Your task to perform on an android device: Open Reddit.com Image 0: 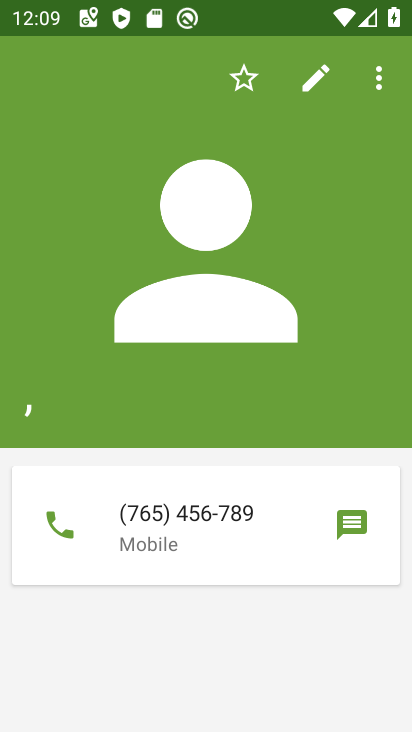
Step 0: press home button
Your task to perform on an android device: Open Reddit.com Image 1: 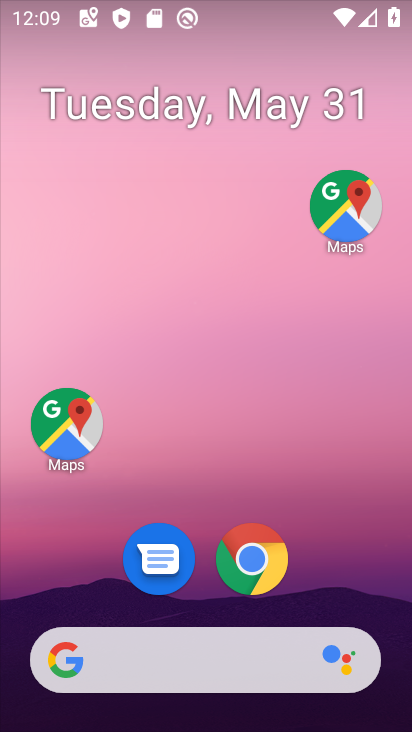
Step 1: click (253, 555)
Your task to perform on an android device: Open Reddit.com Image 2: 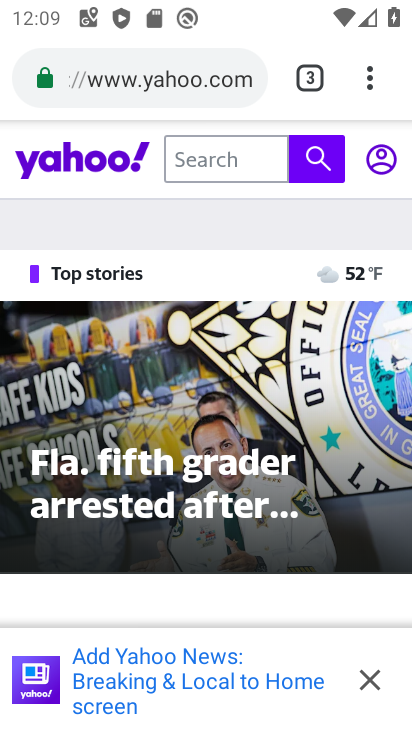
Step 2: click (227, 79)
Your task to perform on an android device: Open Reddit.com Image 3: 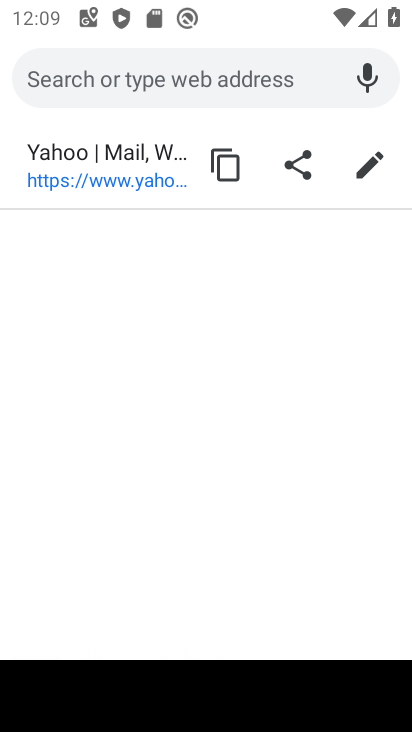
Step 3: type "reddit.com"
Your task to perform on an android device: Open Reddit.com Image 4: 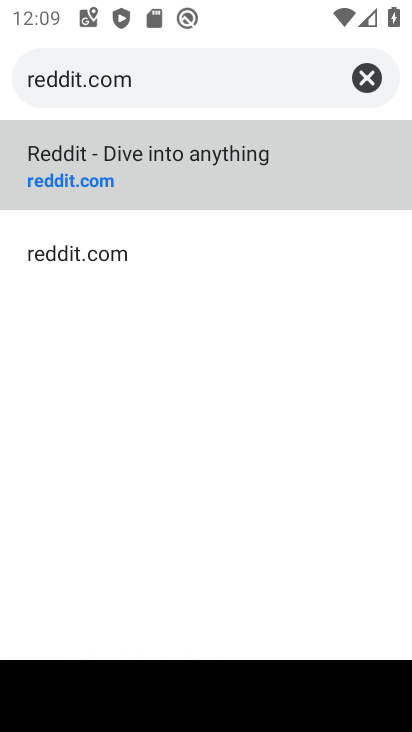
Step 4: click (107, 186)
Your task to perform on an android device: Open Reddit.com Image 5: 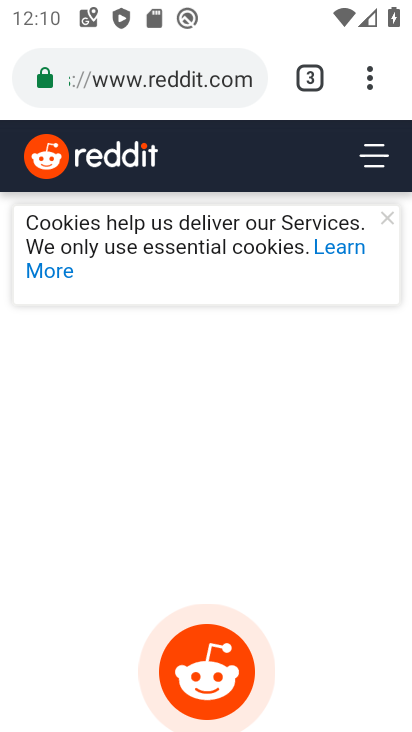
Step 5: task complete